Your task to perform on an android device: all mails in gmail Image 0: 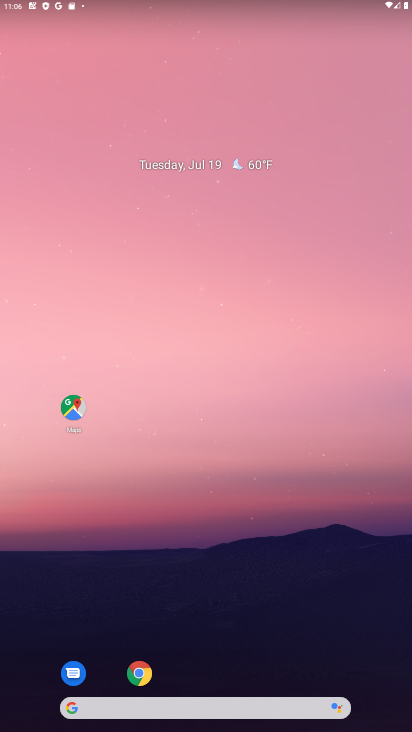
Step 0: drag from (379, 665) to (319, 104)
Your task to perform on an android device: all mails in gmail Image 1: 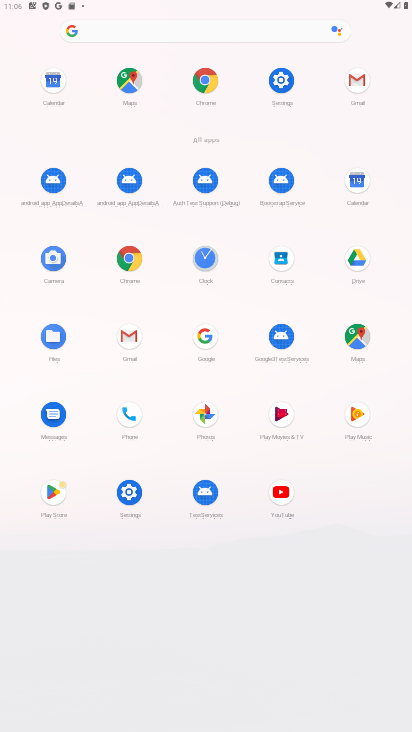
Step 1: click (128, 337)
Your task to perform on an android device: all mails in gmail Image 2: 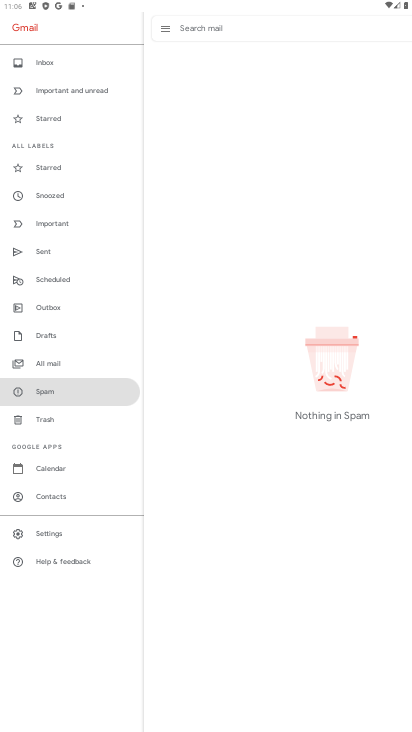
Step 2: click (47, 364)
Your task to perform on an android device: all mails in gmail Image 3: 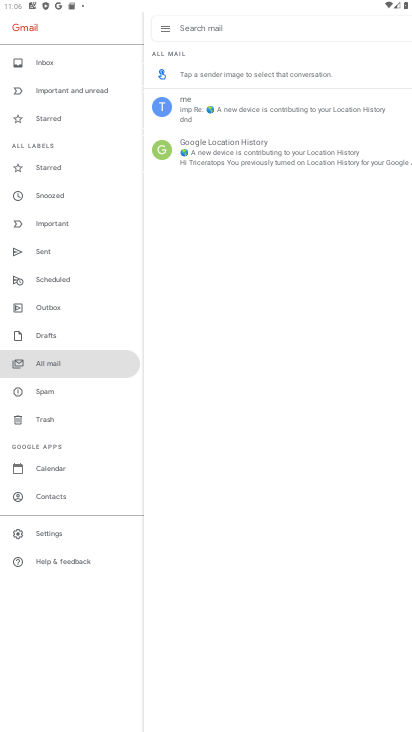
Step 3: task complete